Your task to perform on an android device: Open Wikipedia Image 0: 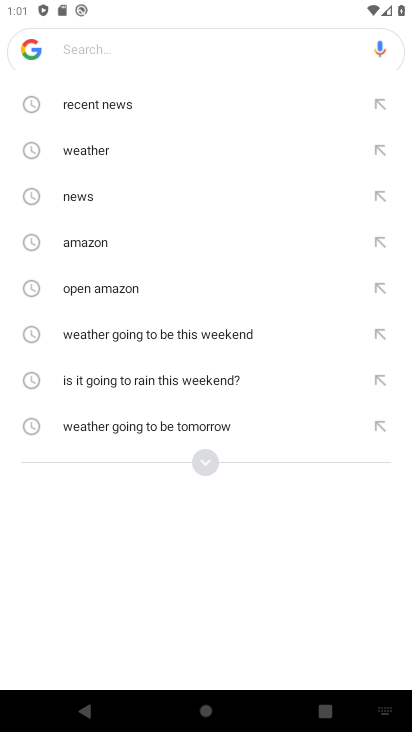
Step 0: press back button
Your task to perform on an android device: Open Wikipedia Image 1: 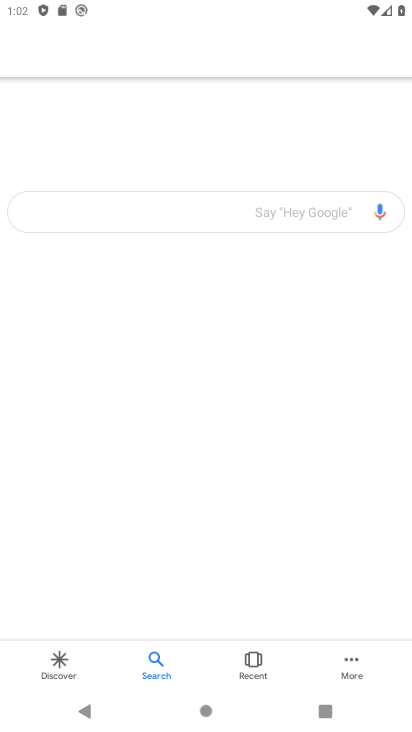
Step 1: press back button
Your task to perform on an android device: Open Wikipedia Image 2: 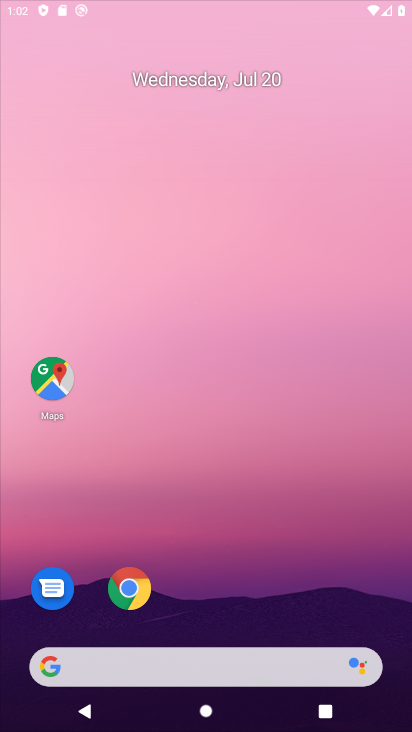
Step 2: press back button
Your task to perform on an android device: Open Wikipedia Image 3: 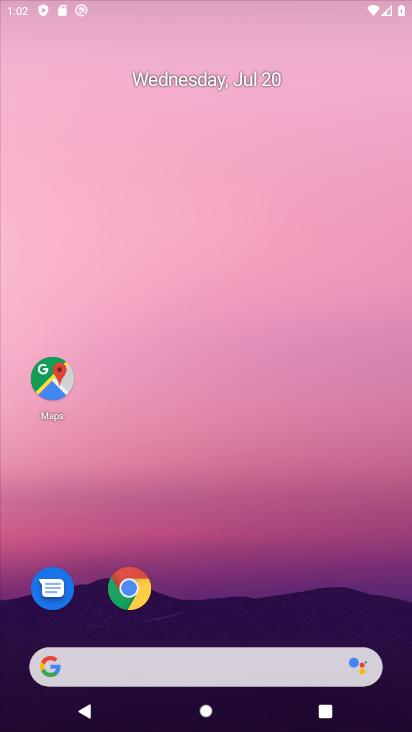
Step 3: click (141, 589)
Your task to perform on an android device: Open Wikipedia Image 4: 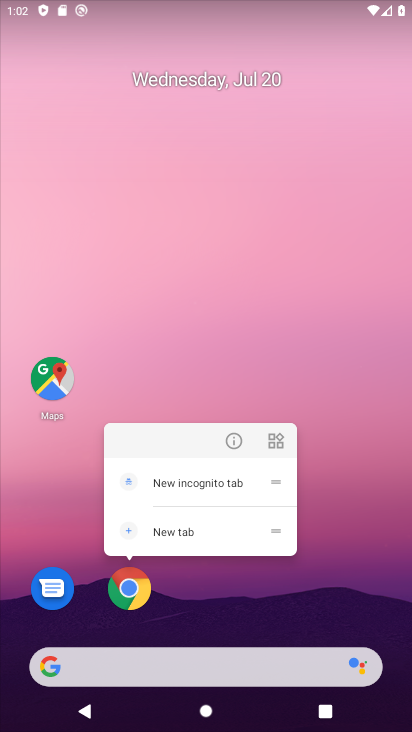
Step 4: click (136, 578)
Your task to perform on an android device: Open Wikipedia Image 5: 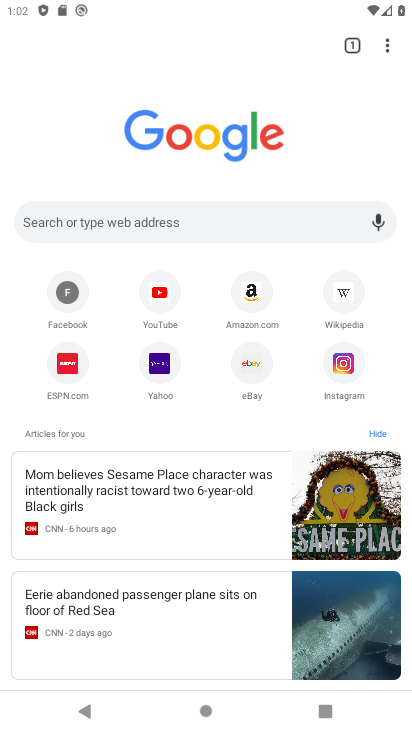
Step 5: click (344, 290)
Your task to perform on an android device: Open Wikipedia Image 6: 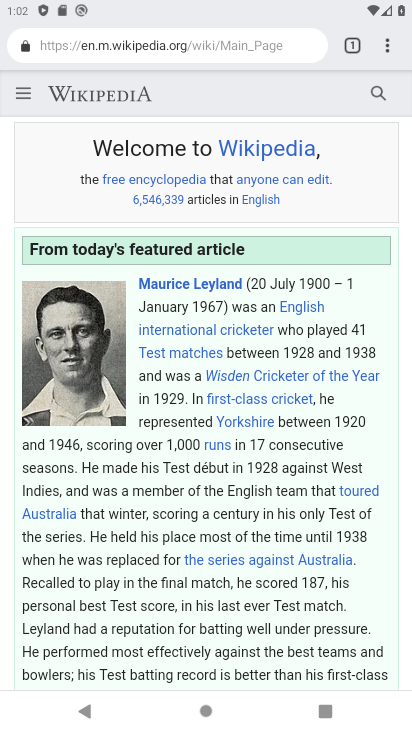
Step 6: task complete